Your task to perform on an android device: open wifi settings Image 0: 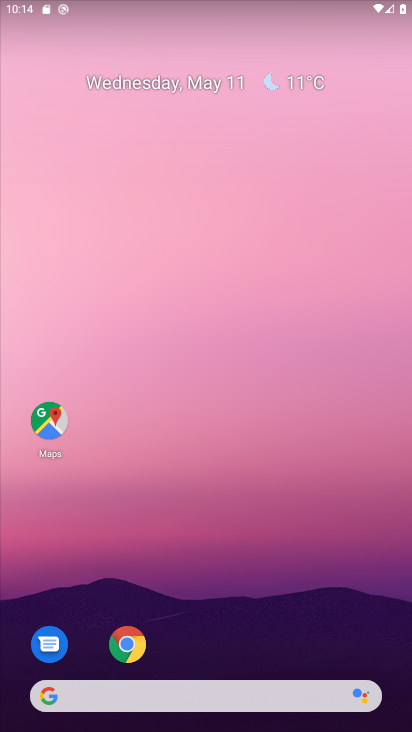
Step 0: press home button
Your task to perform on an android device: open wifi settings Image 1: 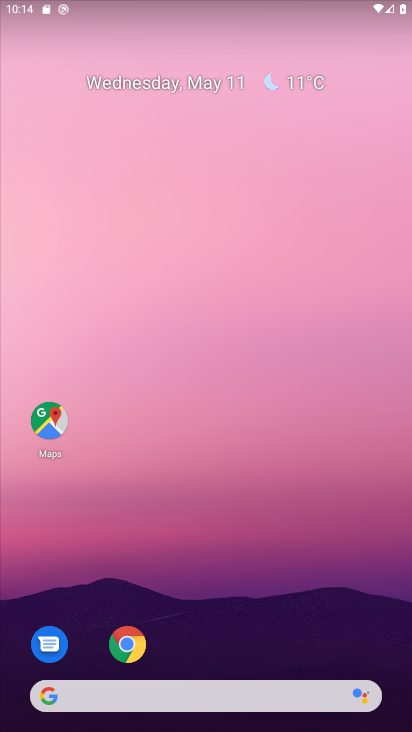
Step 1: drag from (220, 638) to (281, 112)
Your task to perform on an android device: open wifi settings Image 2: 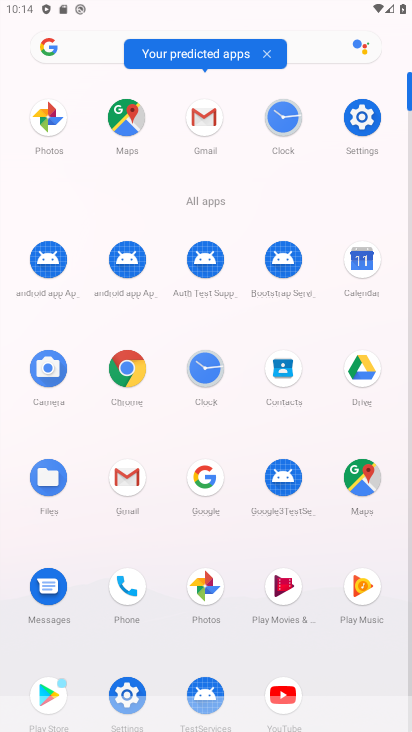
Step 2: click (362, 112)
Your task to perform on an android device: open wifi settings Image 3: 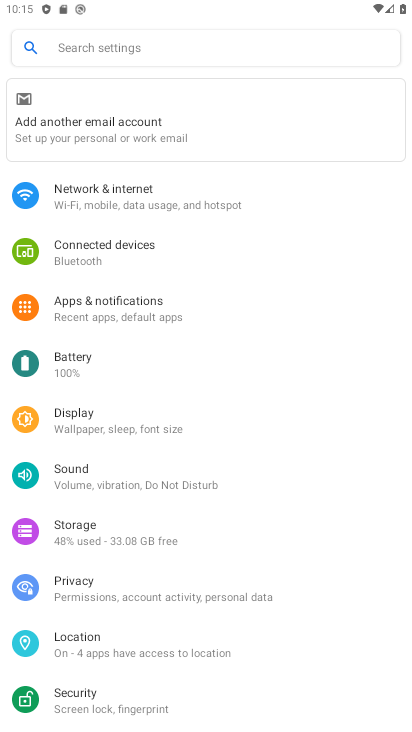
Step 3: click (137, 189)
Your task to perform on an android device: open wifi settings Image 4: 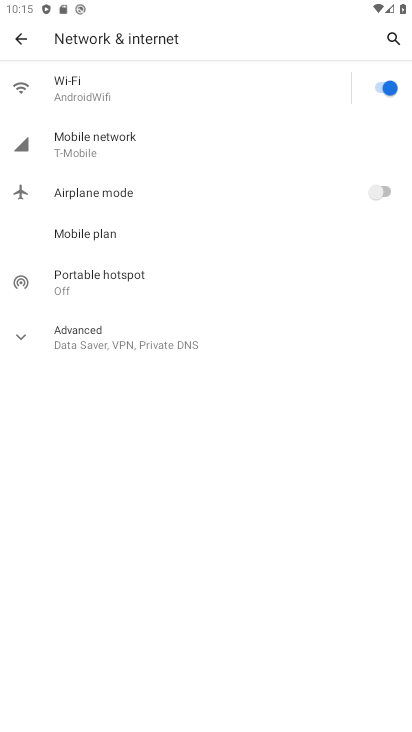
Step 4: click (123, 86)
Your task to perform on an android device: open wifi settings Image 5: 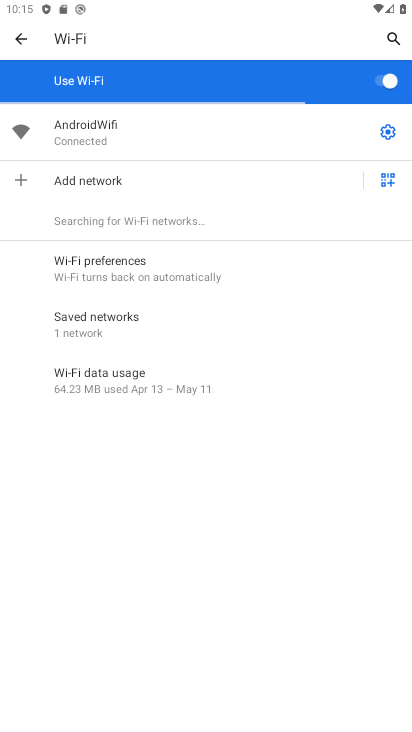
Step 5: task complete